Your task to perform on an android device: Go to calendar. Show me events next week Image 0: 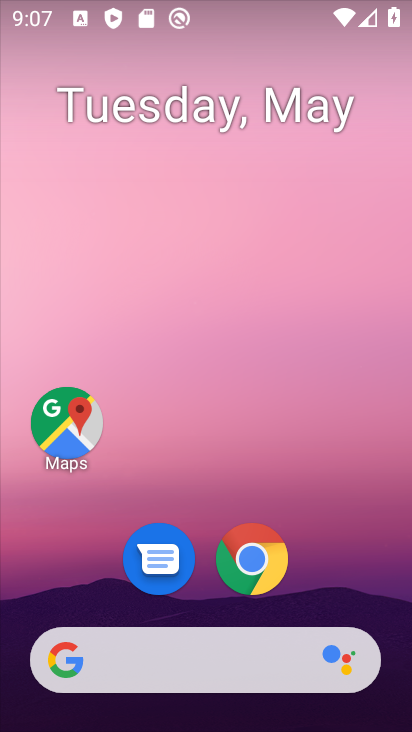
Step 0: drag from (185, 653) to (141, 335)
Your task to perform on an android device: Go to calendar. Show me events next week Image 1: 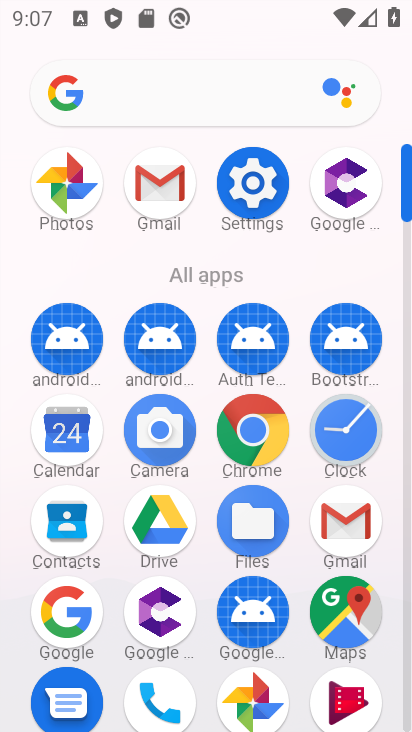
Step 1: click (83, 414)
Your task to perform on an android device: Go to calendar. Show me events next week Image 2: 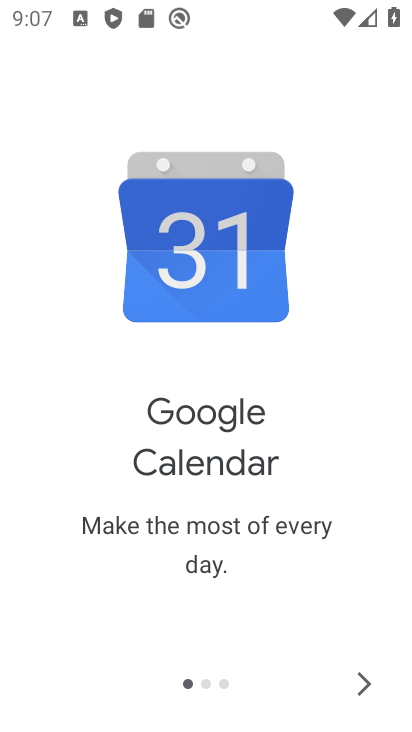
Step 2: click (366, 680)
Your task to perform on an android device: Go to calendar. Show me events next week Image 3: 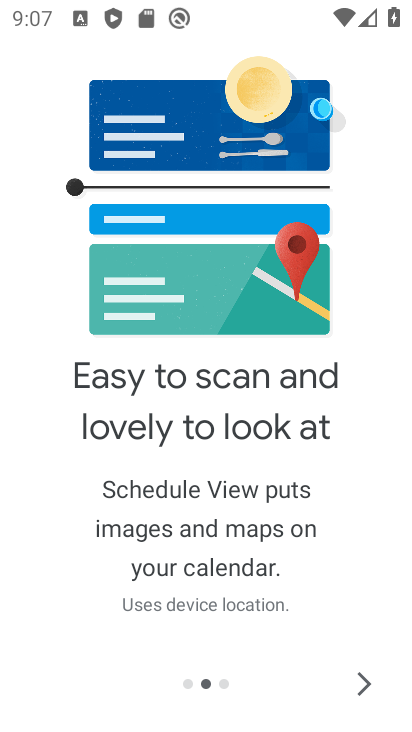
Step 3: click (366, 680)
Your task to perform on an android device: Go to calendar. Show me events next week Image 4: 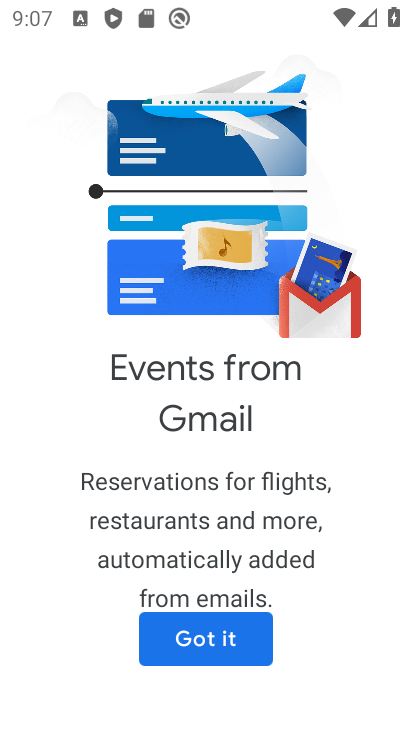
Step 4: click (251, 651)
Your task to perform on an android device: Go to calendar. Show me events next week Image 5: 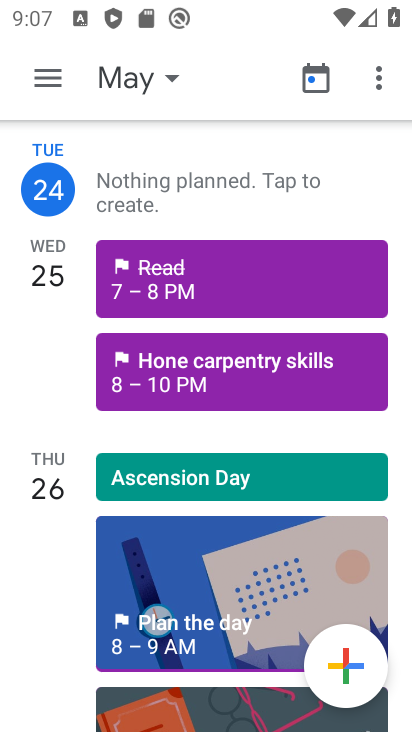
Step 5: click (54, 88)
Your task to perform on an android device: Go to calendar. Show me events next week Image 6: 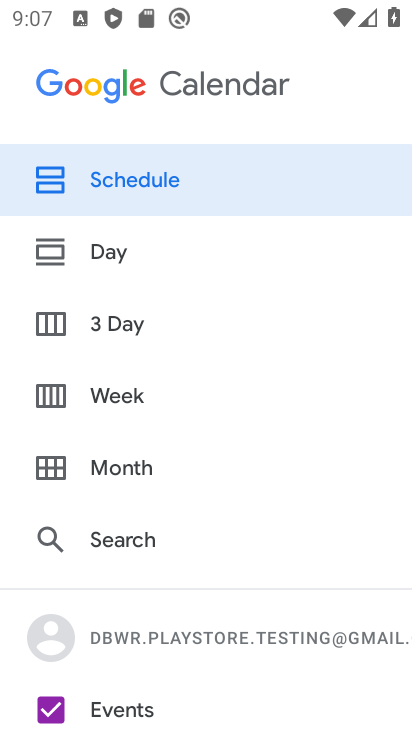
Step 6: click (150, 411)
Your task to perform on an android device: Go to calendar. Show me events next week Image 7: 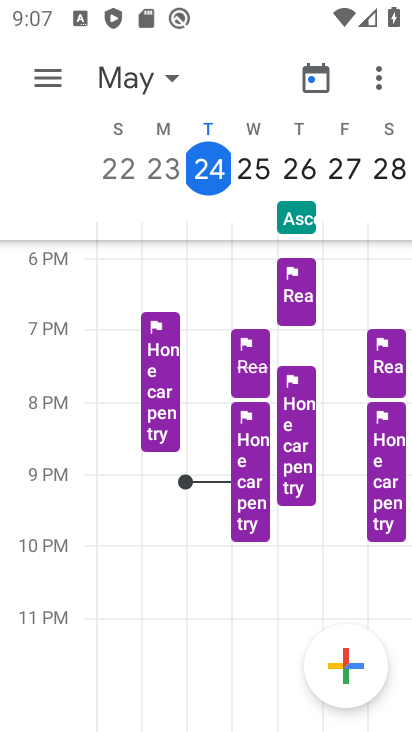
Step 7: task complete